Your task to perform on an android device: Open Chrome and go to the settings page Image 0: 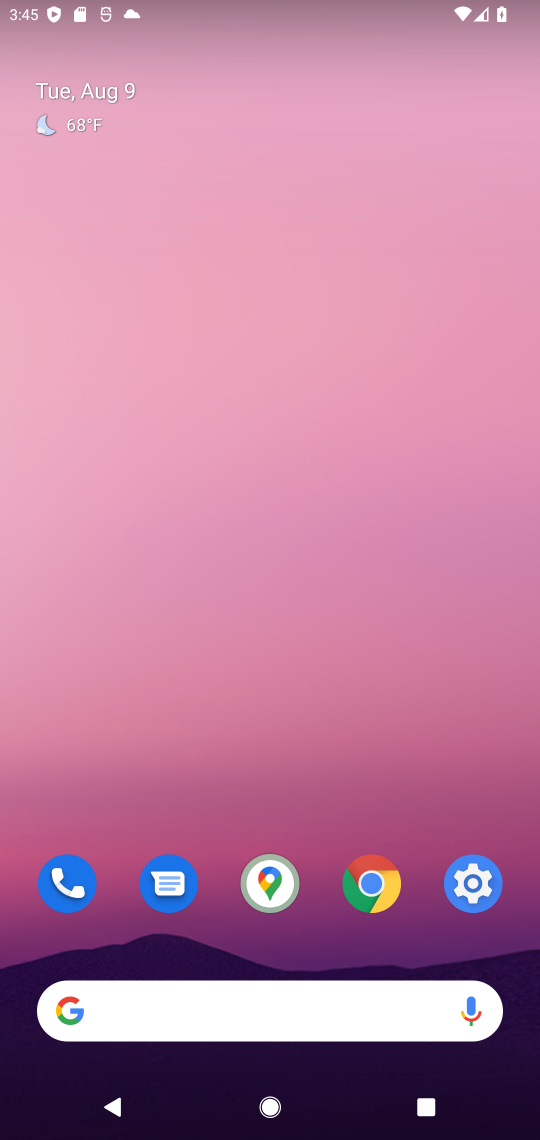
Step 0: drag from (352, 940) to (222, 337)
Your task to perform on an android device: Open Chrome and go to the settings page Image 1: 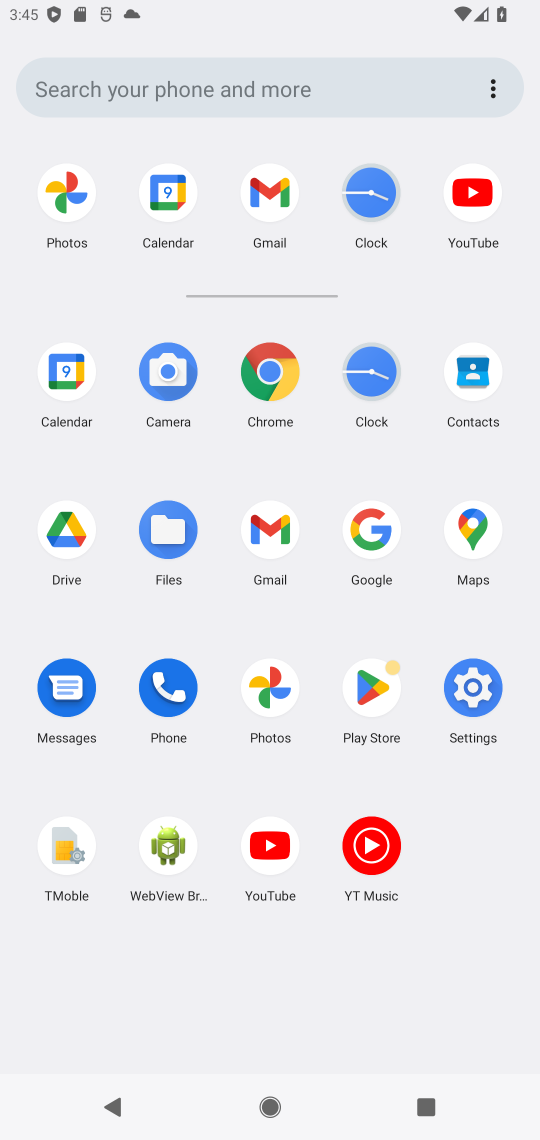
Step 1: click (273, 362)
Your task to perform on an android device: Open Chrome and go to the settings page Image 2: 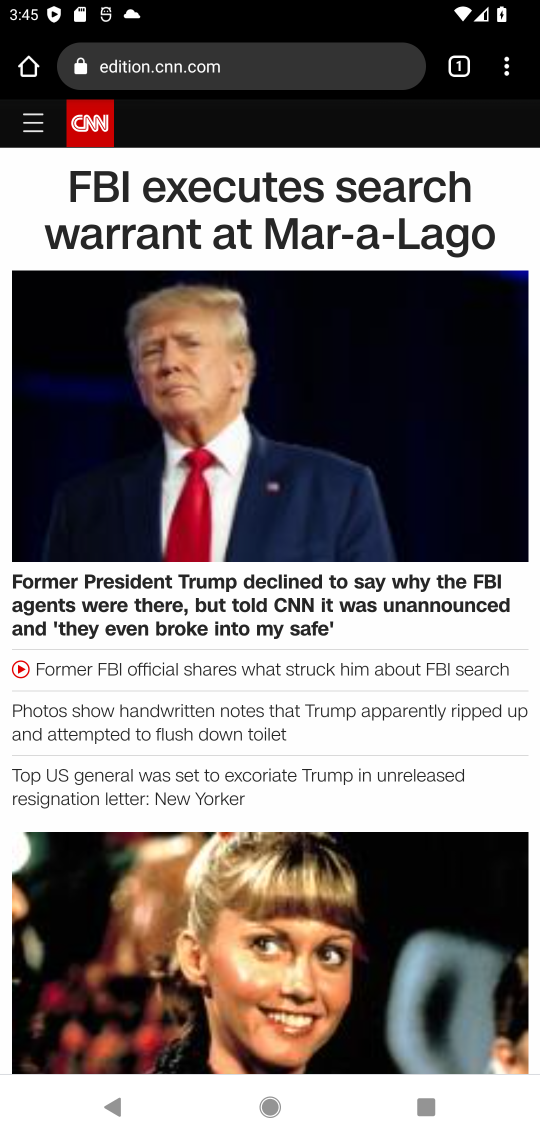
Step 2: click (497, 56)
Your task to perform on an android device: Open Chrome and go to the settings page Image 3: 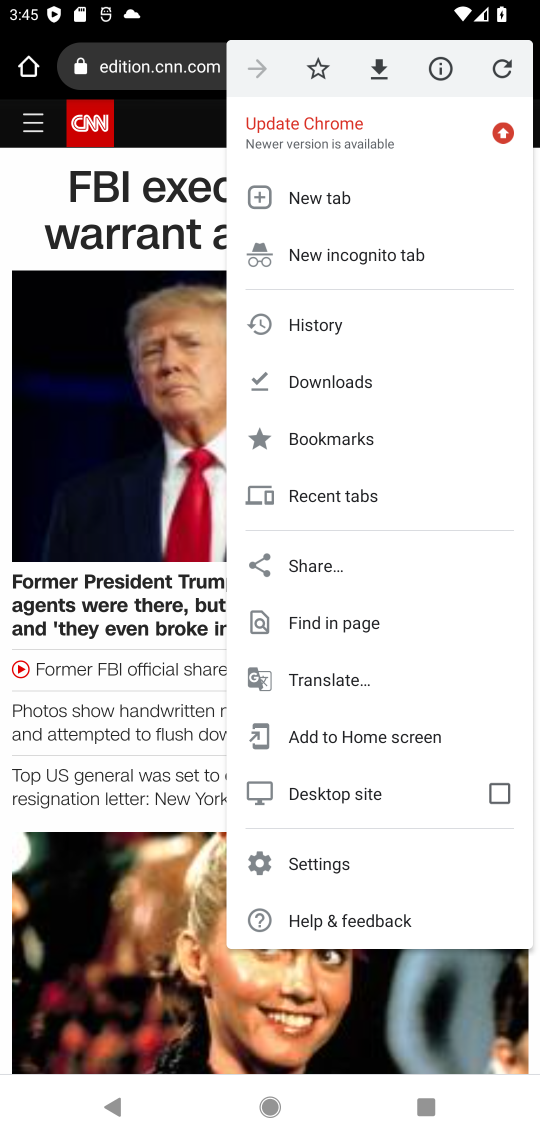
Step 3: click (293, 862)
Your task to perform on an android device: Open Chrome and go to the settings page Image 4: 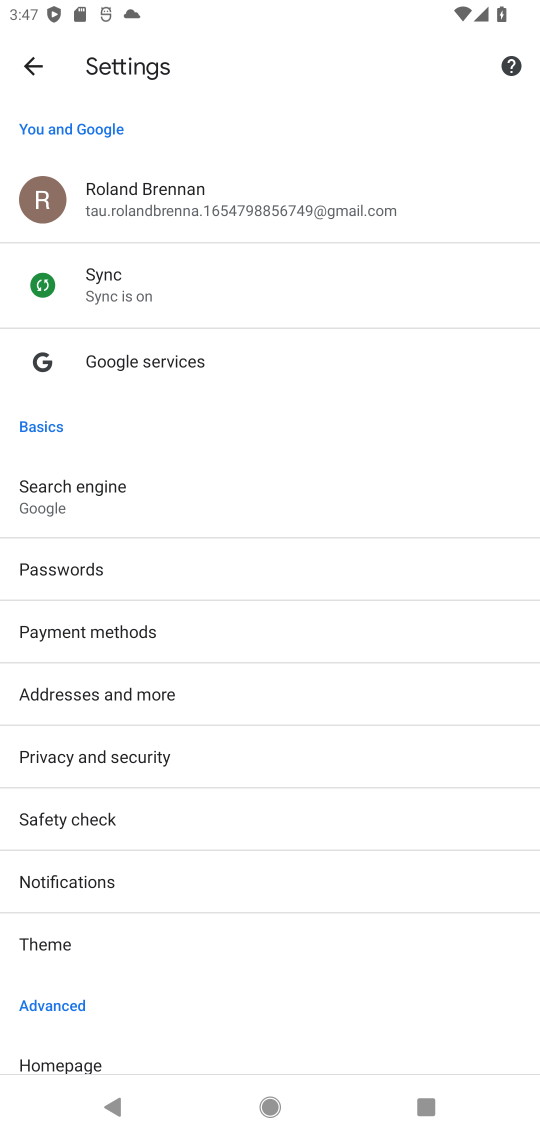
Step 4: task complete